Your task to perform on an android device: turn off notifications settings in the gmail app Image 0: 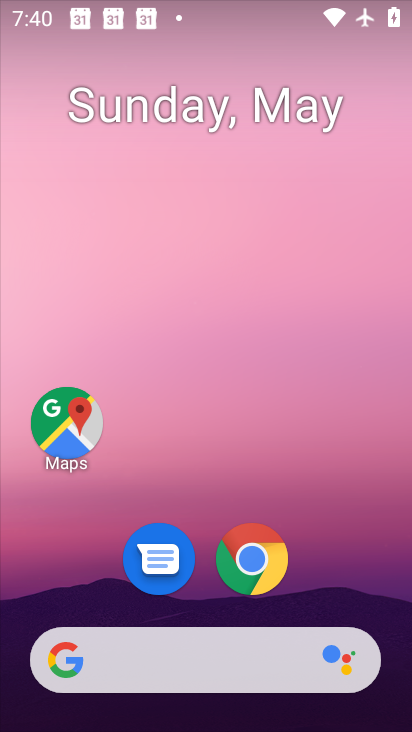
Step 0: press home button
Your task to perform on an android device: turn off notifications settings in the gmail app Image 1: 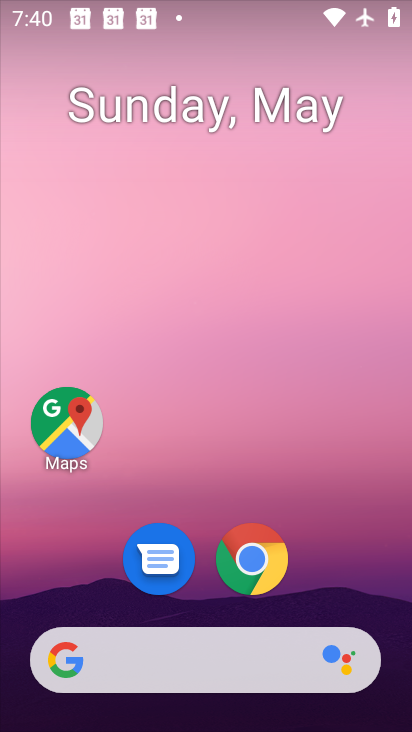
Step 1: drag from (214, 648) to (332, 89)
Your task to perform on an android device: turn off notifications settings in the gmail app Image 2: 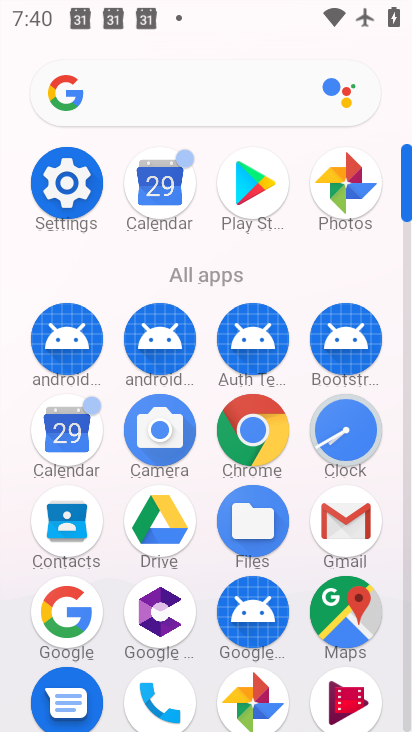
Step 2: click (347, 530)
Your task to perform on an android device: turn off notifications settings in the gmail app Image 3: 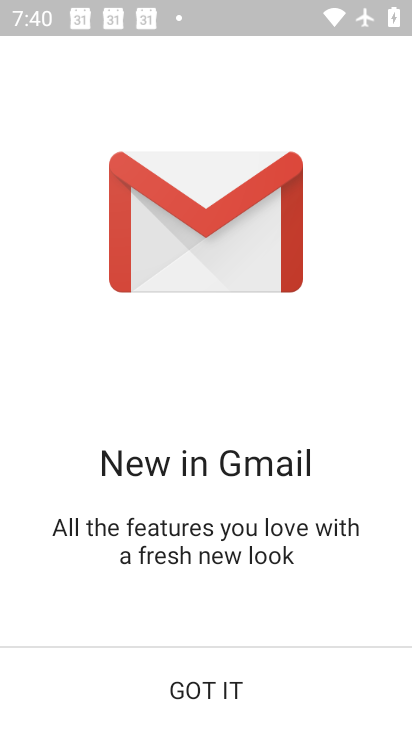
Step 3: click (230, 676)
Your task to perform on an android device: turn off notifications settings in the gmail app Image 4: 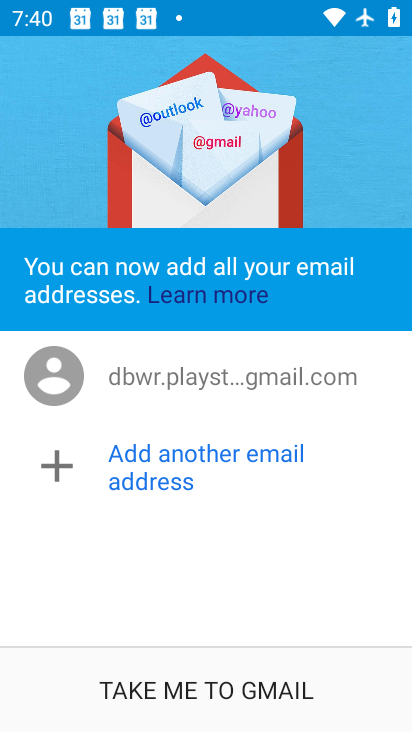
Step 4: click (230, 676)
Your task to perform on an android device: turn off notifications settings in the gmail app Image 5: 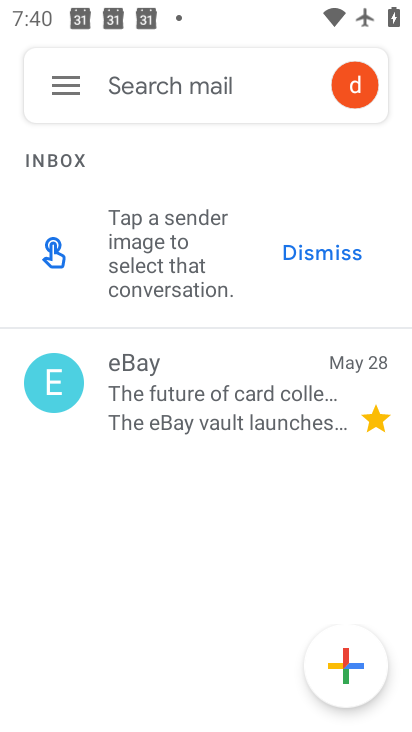
Step 5: click (68, 83)
Your task to perform on an android device: turn off notifications settings in the gmail app Image 6: 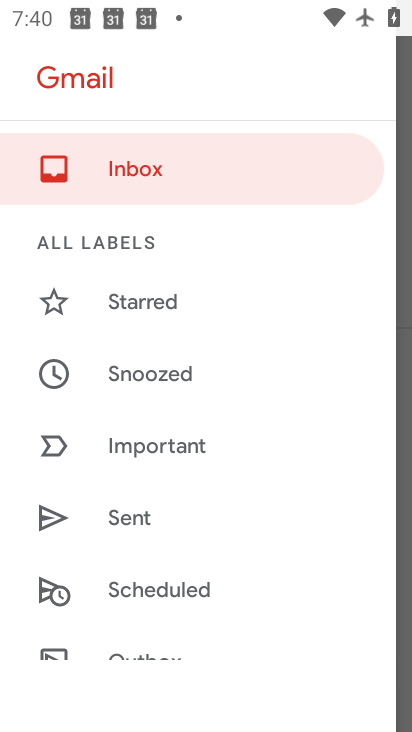
Step 6: drag from (304, 593) to (364, 51)
Your task to perform on an android device: turn off notifications settings in the gmail app Image 7: 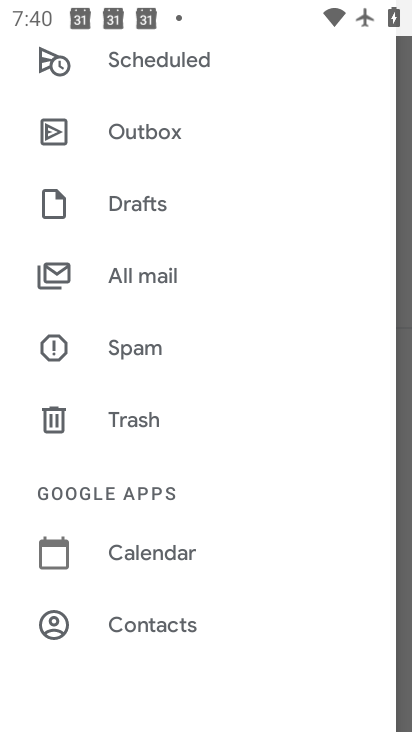
Step 7: drag from (248, 564) to (321, 175)
Your task to perform on an android device: turn off notifications settings in the gmail app Image 8: 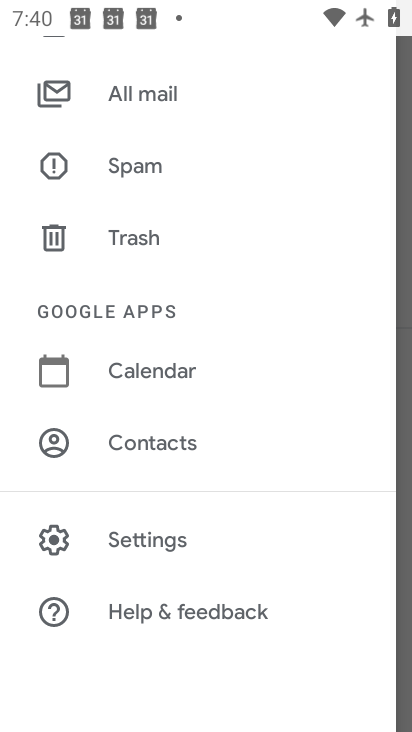
Step 8: click (151, 544)
Your task to perform on an android device: turn off notifications settings in the gmail app Image 9: 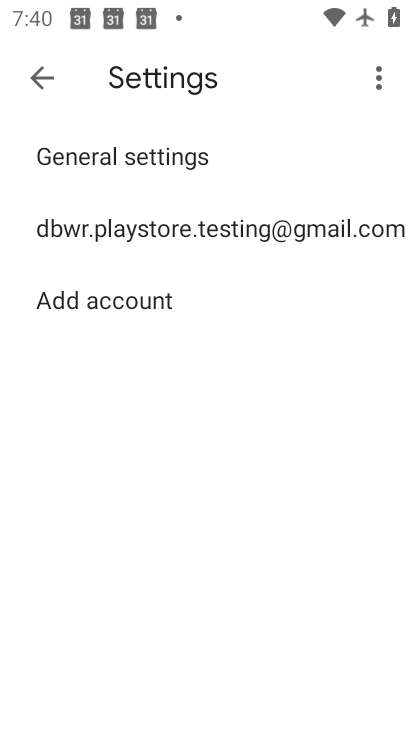
Step 9: click (212, 226)
Your task to perform on an android device: turn off notifications settings in the gmail app Image 10: 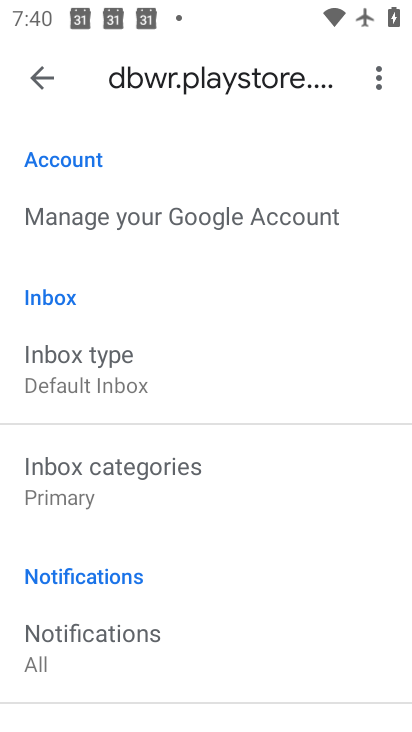
Step 10: drag from (265, 576) to (322, 358)
Your task to perform on an android device: turn off notifications settings in the gmail app Image 11: 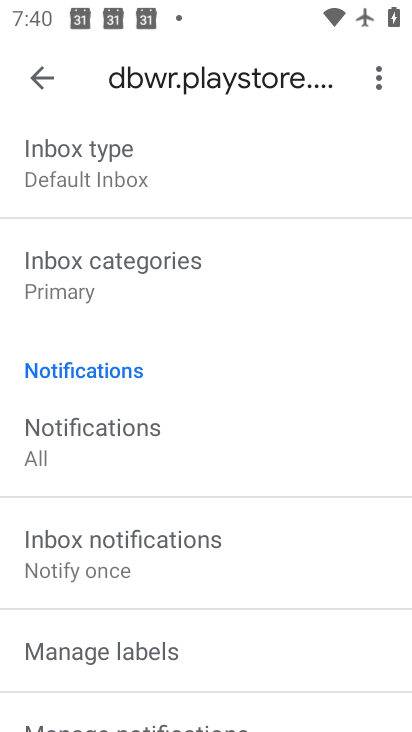
Step 11: click (94, 445)
Your task to perform on an android device: turn off notifications settings in the gmail app Image 12: 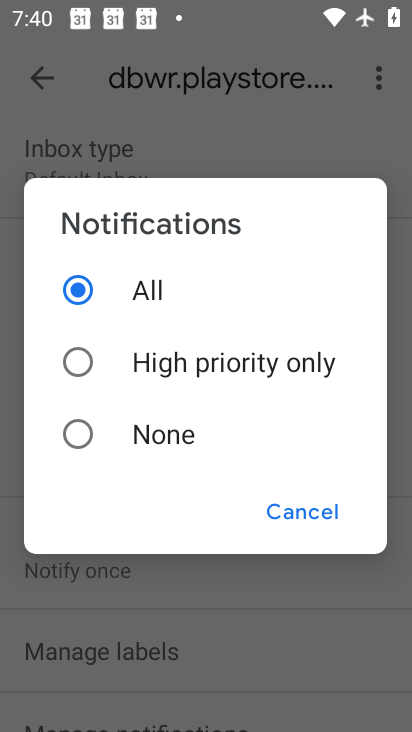
Step 12: click (82, 430)
Your task to perform on an android device: turn off notifications settings in the gmail app Image 13: 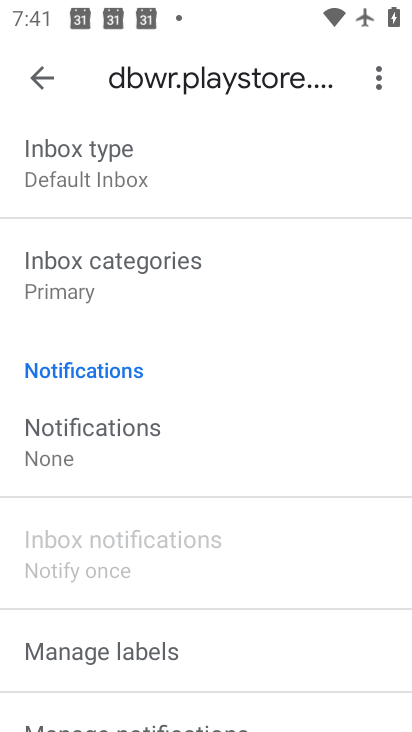
Step 13: task complete